Your task to perform on an android device: turn vacation reply on in the gmail app Image 0: 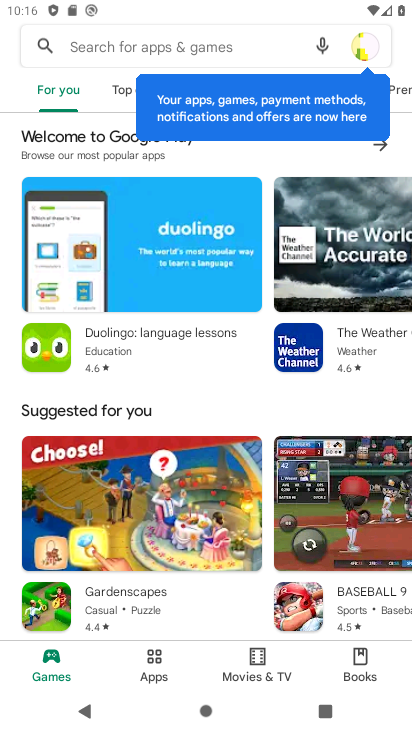
Step 0: press home button
Your task to perform on an android device: turn vacation reply on in the gmail app Image 1: 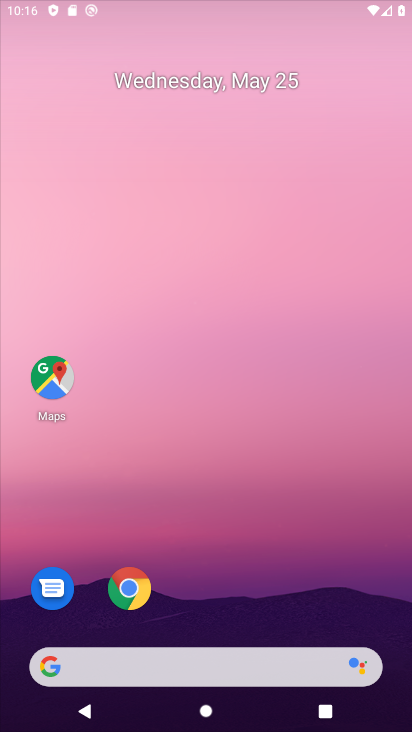
Step 1: drag from (331, 482) to (303, 25)
Your task to perform on an android device: turn vacation reply on in the gmail app Image 2: 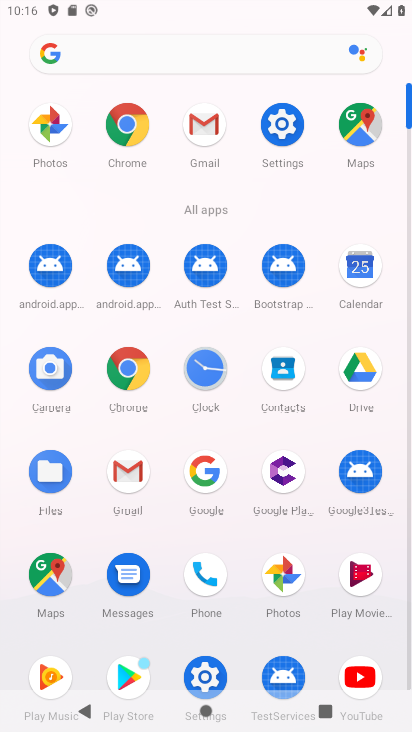
Step 2: click (220, 136)
Your task to perform on an android device: turn vacation reply on in the gmail app Image 3: 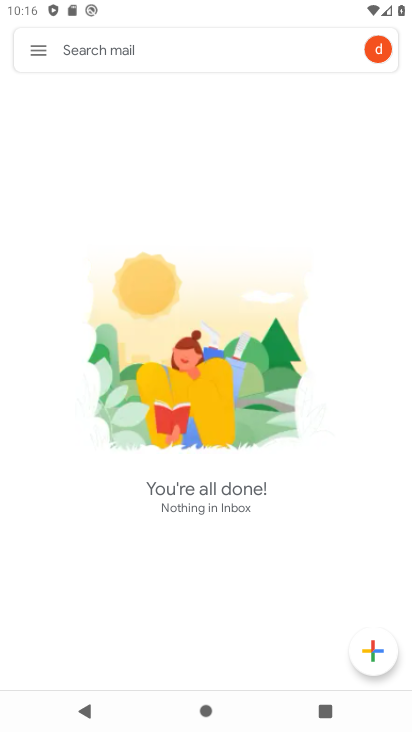
Step 3: click (43, 54)
Your task to perform on an android device: turn vacation reply on in the gmail app Image 4: 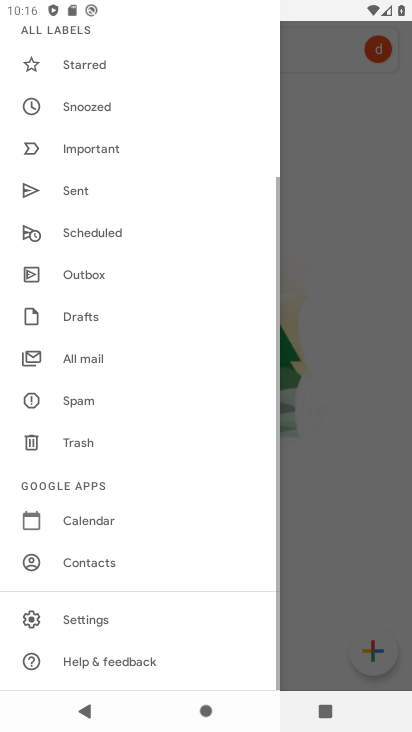
Step 4: drag from (143, 606) to (195, 187)
Your task to perform on an android device: turn vacation reply on in the gmail app Image 5: 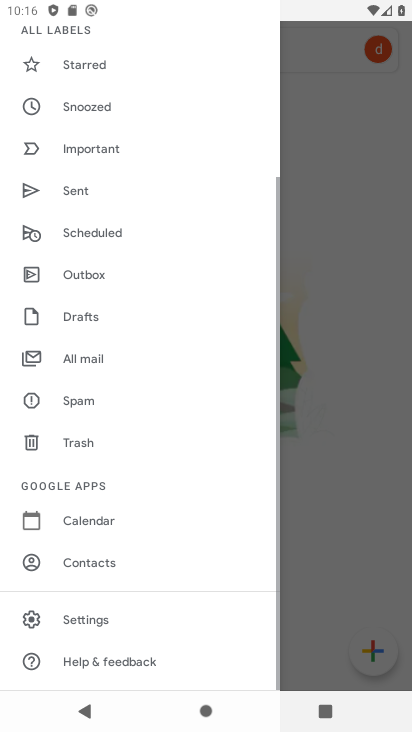
Step 5: click (90, 623)
Your task to perform on an android device: turn vacation reply on in the gmail app Image 6: 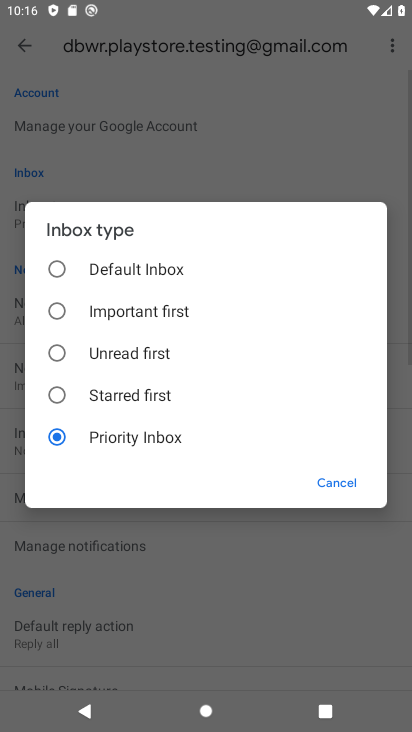
Step 6: click (350, 485)
Your task to perform on an android device: turn vacation reply on in the gmail app Image 7: 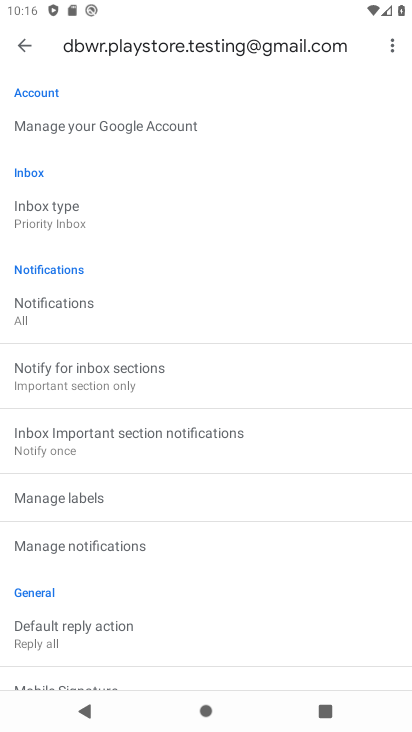
Step 7: drag from (235, 570) to (306, 137)
Your task to perform on an android device: turn vacation reply on in the gmail app Image 8: 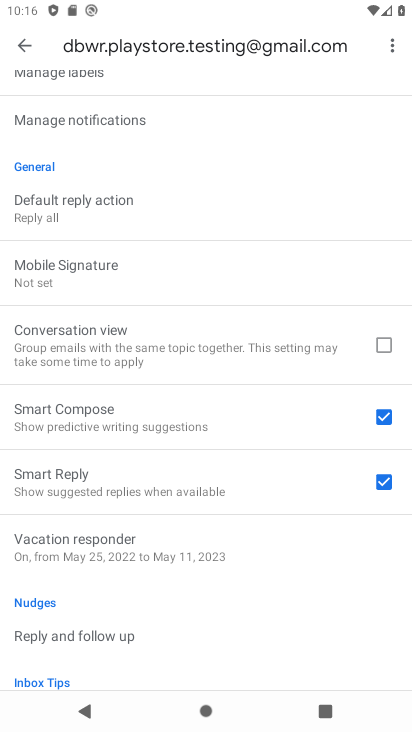
Step 8: drag from (299, 581) to (361, 197)
Your task to perform on an android device: turn vacation reply on in the gmail app Image 9: 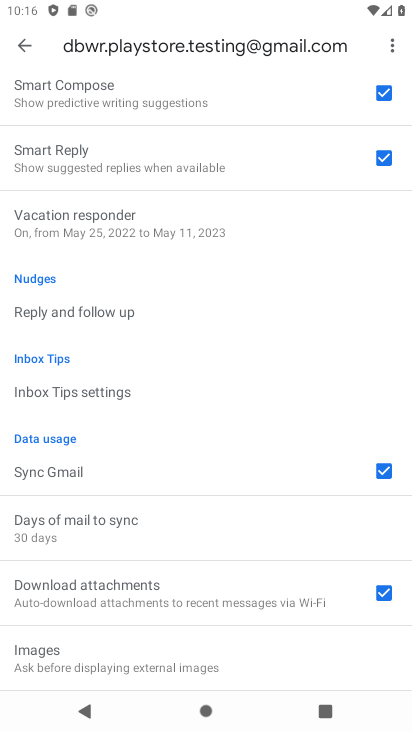
Step 9: drag from (184, 561) to (241, 186)
Your task to perform on an android device: turn vacation reply on in the gmail app Image 10: 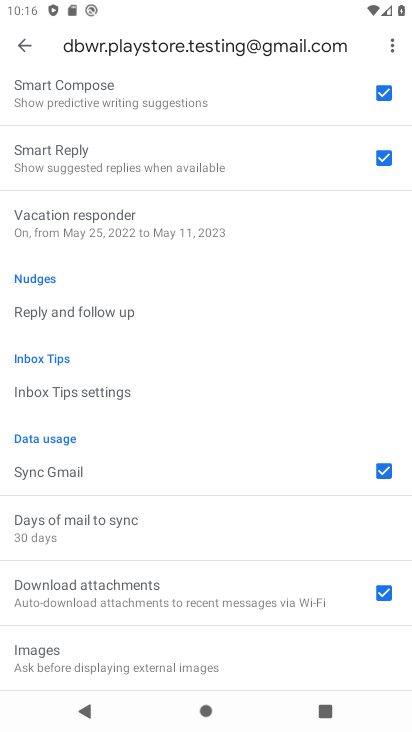
Step 10: click (135, 228)
Your task to perform on an android device: turn vacation reply on in the gmail app Image 11: 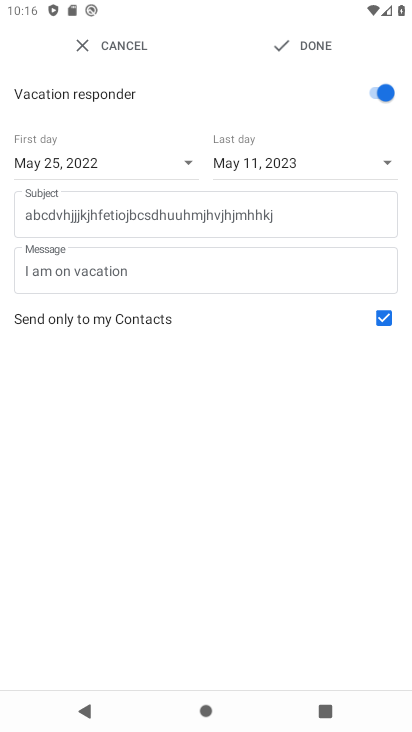
Step 11: task complete